Your task to perform on an android device: Open maps Image 0: 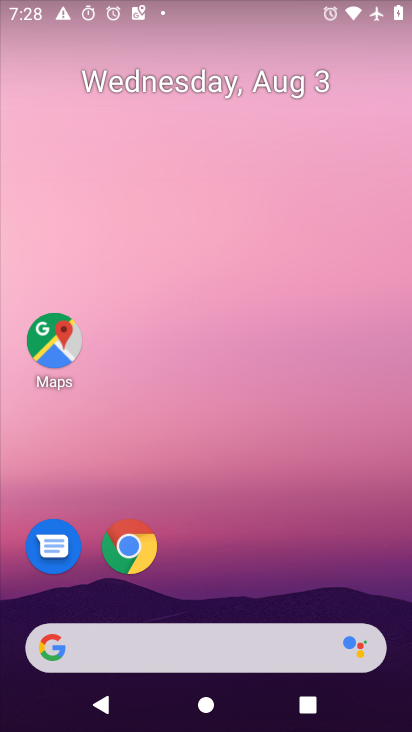
Step 0: press home button
Your task to perform on an android device: Open maps Image 1: 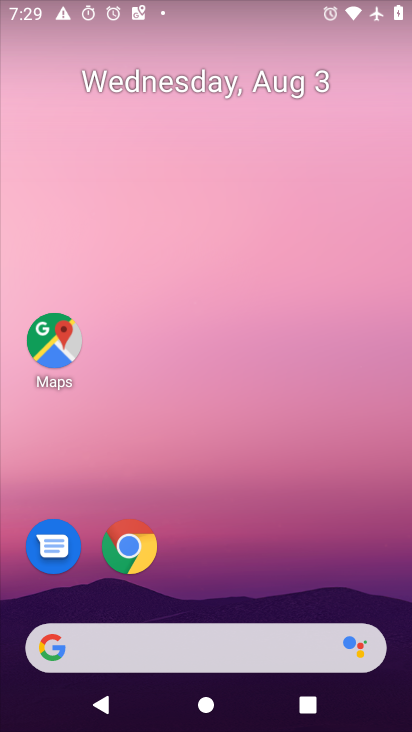
Step 1: click (42, 338)
Your task to perform on an android device: Open maps Image 2: 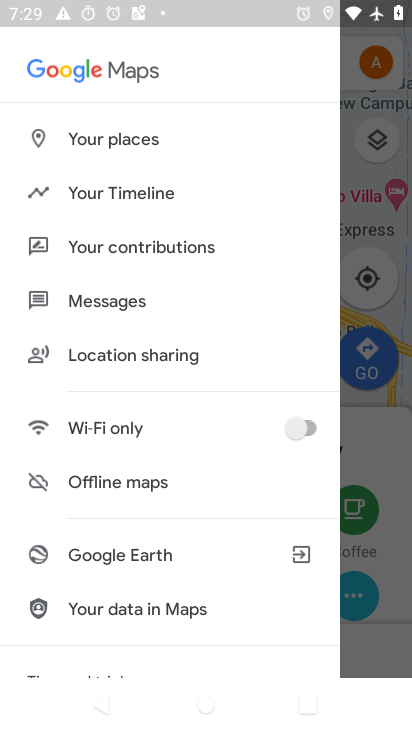
Step 2: click (365, 173)
Your task to perform on an android device: Open maps Image 3: 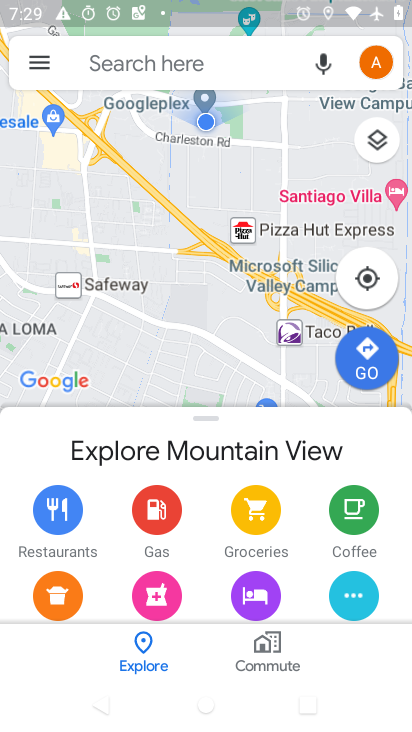
Step 3: task complete